Your task to perform on an android device: Add jbl flip 4 to the cart on target, then select checkout. Image 0: 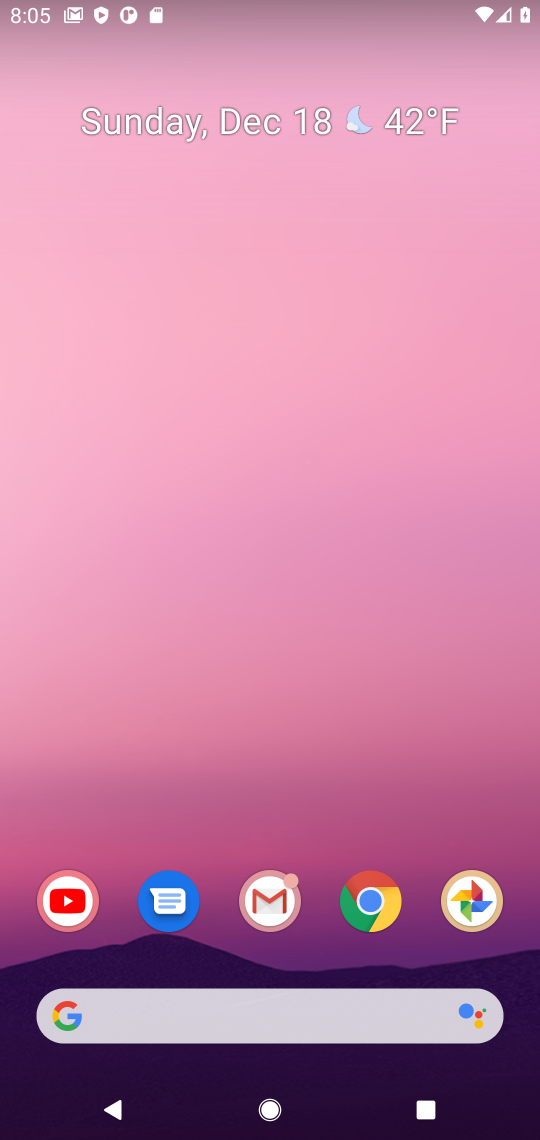
Step 0: click (393, 900)
Your task to perform on an android device: Add jbl flip 4 to the cart on target, then select checkout. Image 1: 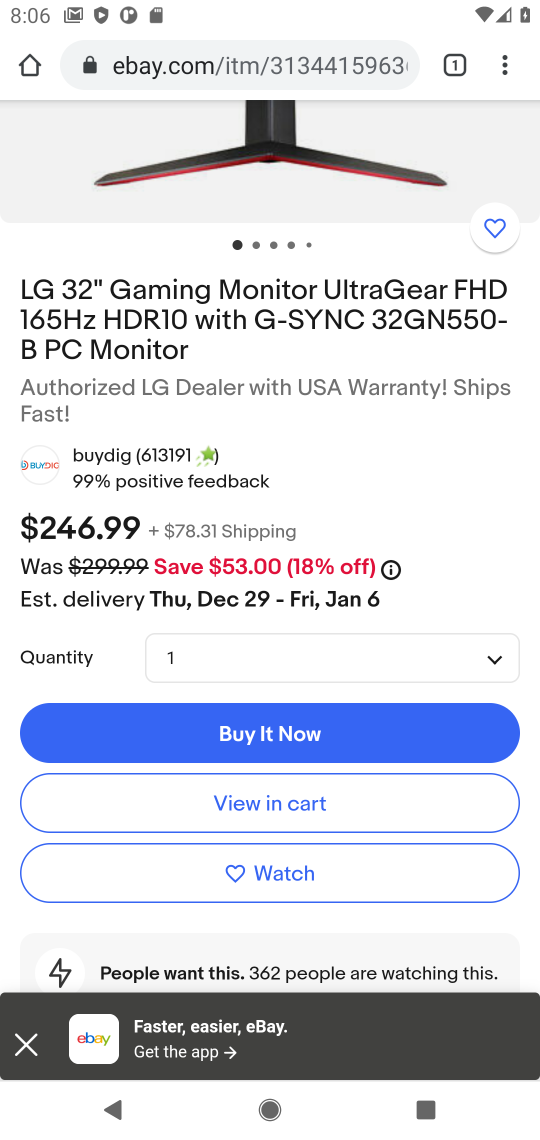
Step 1: click (195, 66)
Your task to perform on an android device: Add jbl flip 4 to the cart on target, then select checkout. Image 2: 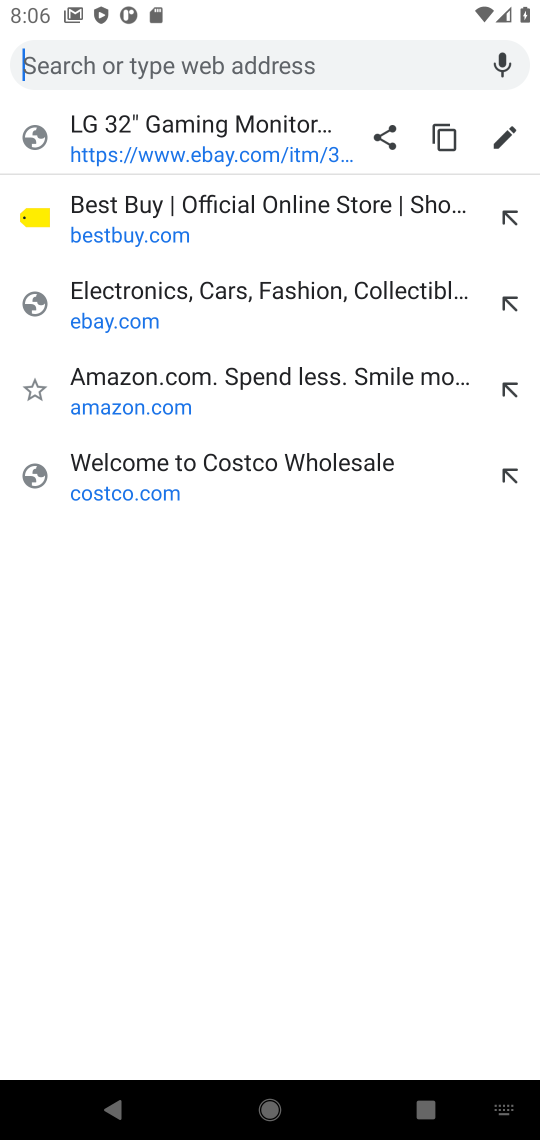
Step 2: type "target"
Your task to perform on an android device: Add jbl flip 4 to the cart on target, then select checkout. Image 3: 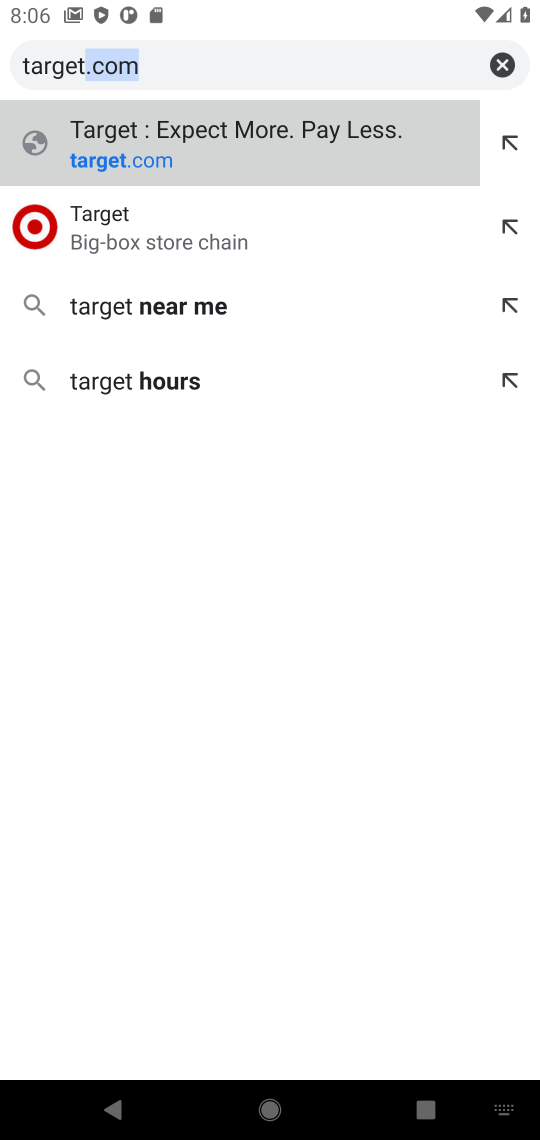
Step 3: click (139, 164)
Your task to perform on an android device: Add jbl flip 4 to the cart on target, then select checkout. Image 4: 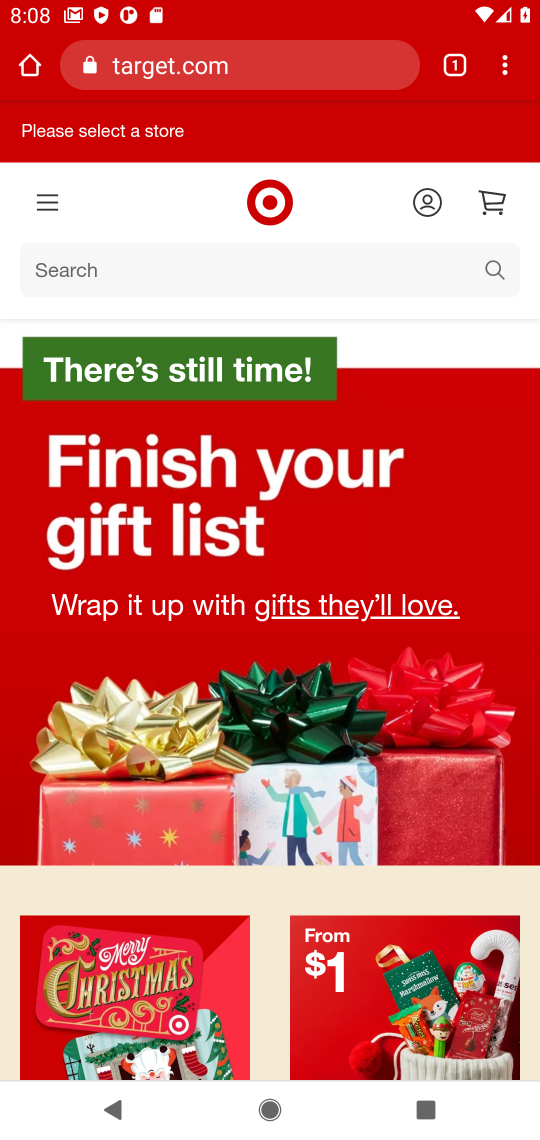
Step 4: click (187, 252)
Your task to perform on an android device: Add jbl flip 4 to the cart on target, then select checkout. Image 5: 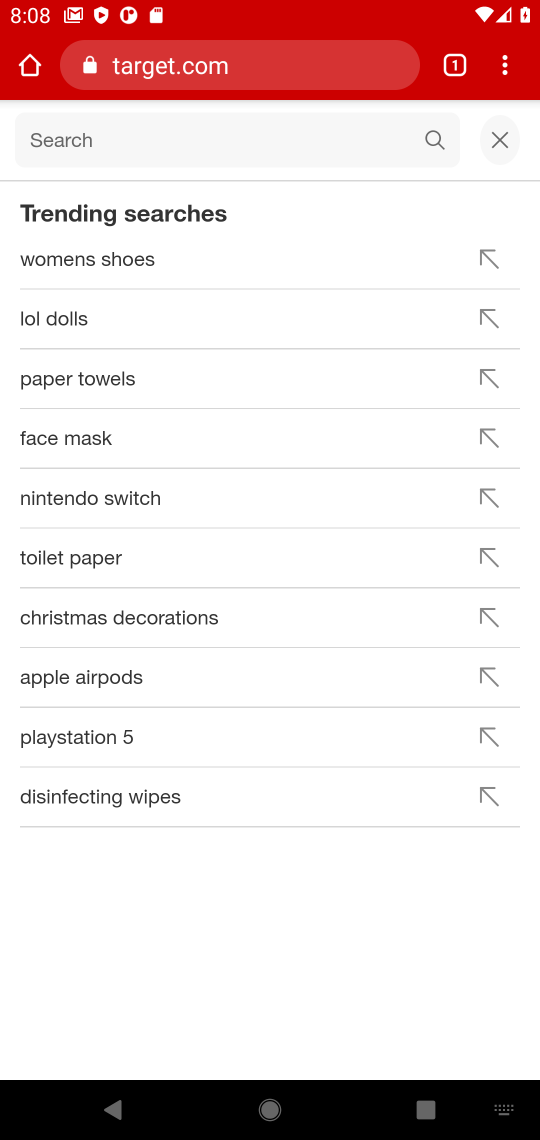
Step 5: type "jbl flip 4"
Your task to perform on an android device: Add jbl flip 4 to the cart on target, then select checkout. Image 6: 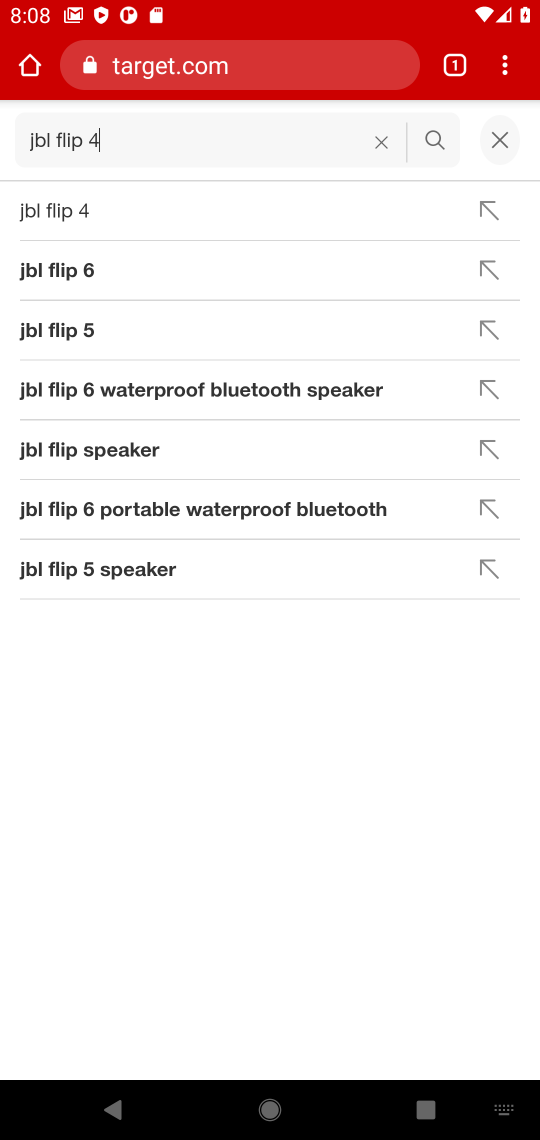
Step 6: click (425, 146)
Your task to perform on an android device: Add jbl flip 4 to the cart on target, then select checkout. Image 7: 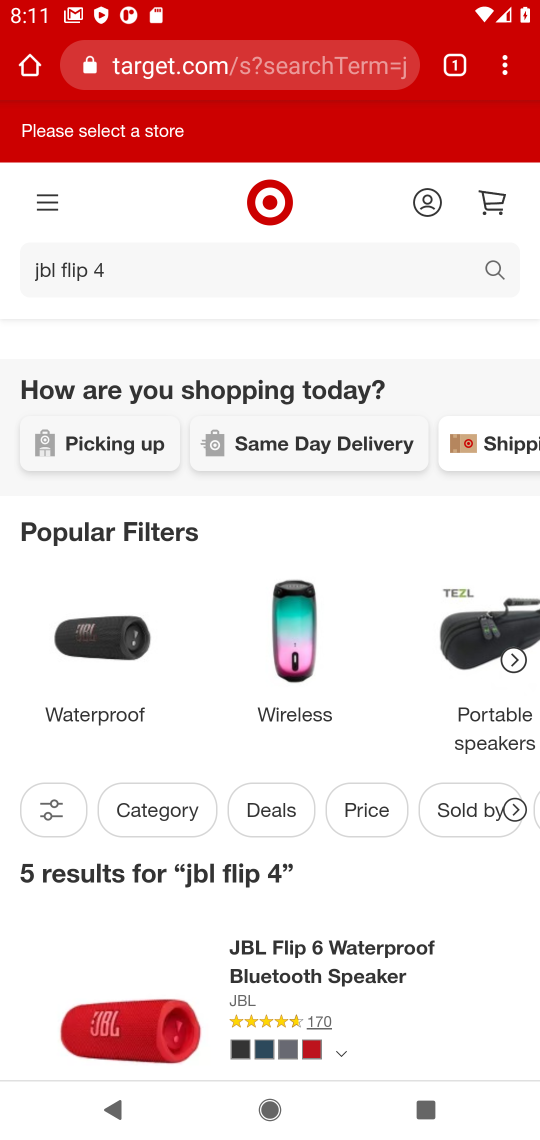
Step 7: task complete